Your task to perform on an android device: find snoozed emails in the gmail app Image 0: 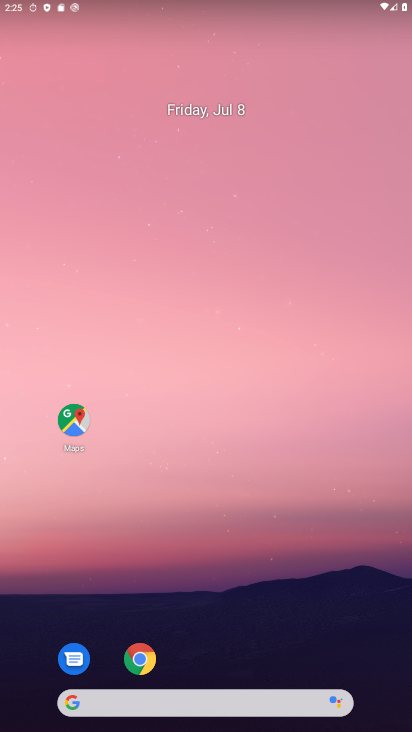
Step 0: drag from (217, 618) to (143, 124)
Your task to perform on an android device: find snoozed emails in the gmail app Image 1: 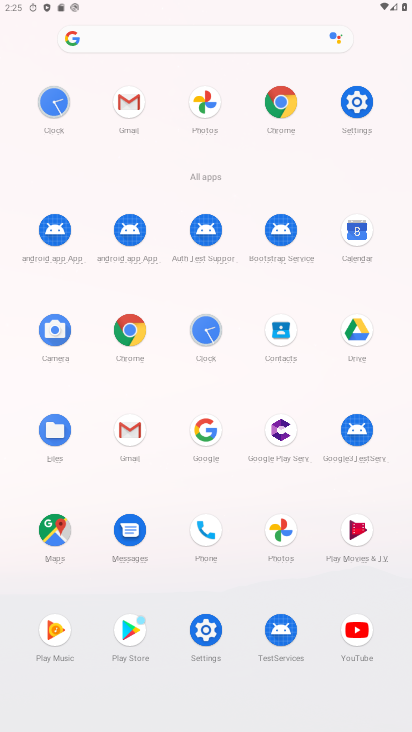
Step 1: click (128, 434)
Your task to perform on an android device: find snoozed emails in the gmail app Image 2: 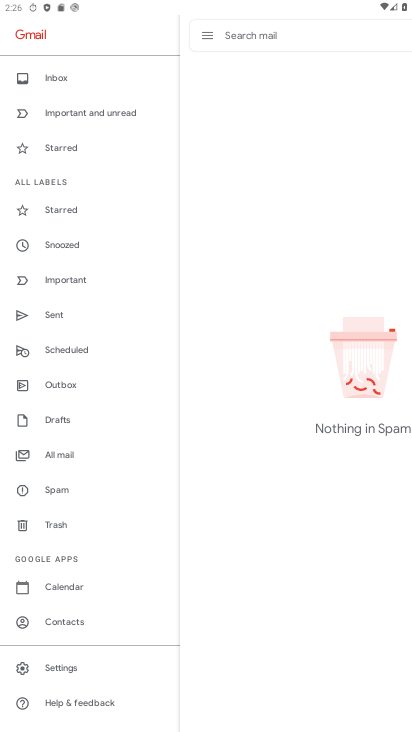
Step 2: click (75, 243)
Your task to perform on an android device: find snoozed emails in the gmail app Image 3: 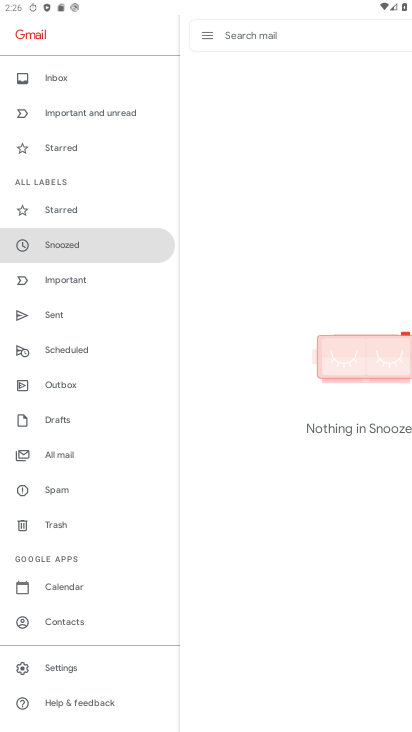
Step 3: task complete